Your task to perform on an android device: Show me popular videos on Youtube Image 0: 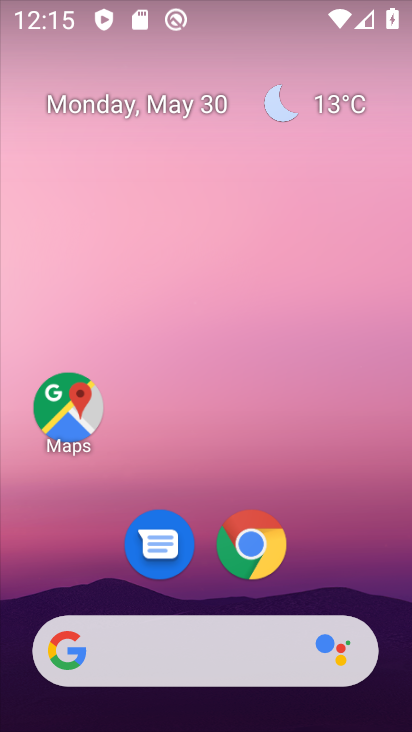
Step 0: drag from (365, 572) to (318, 22)
Your task to perform on an android device: Show me popular videos on Youtube Image 1: 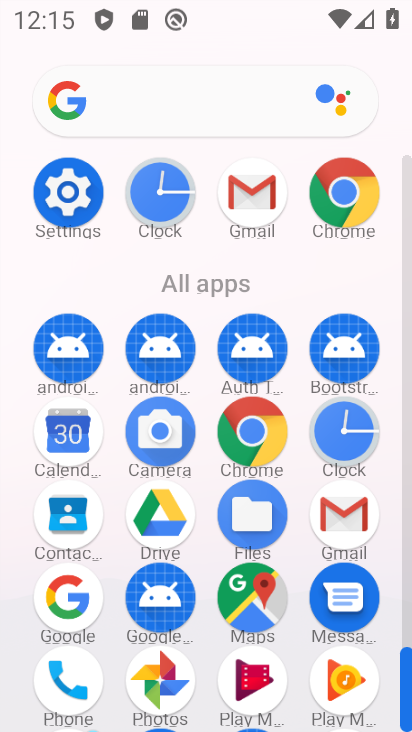
Step 1: click (409, 673)
Your task to perform on an android device: Show me popular videos on Youtube Image 2: 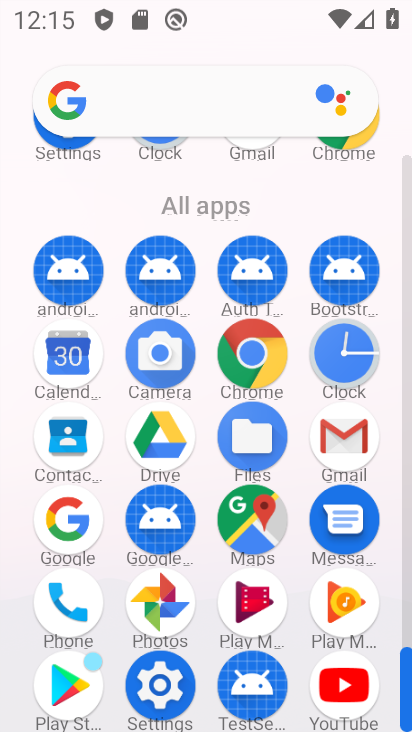
Step 2: click (361, 690)
Your task to perform on an android device: Show me popular videos on Youtube Image 3: 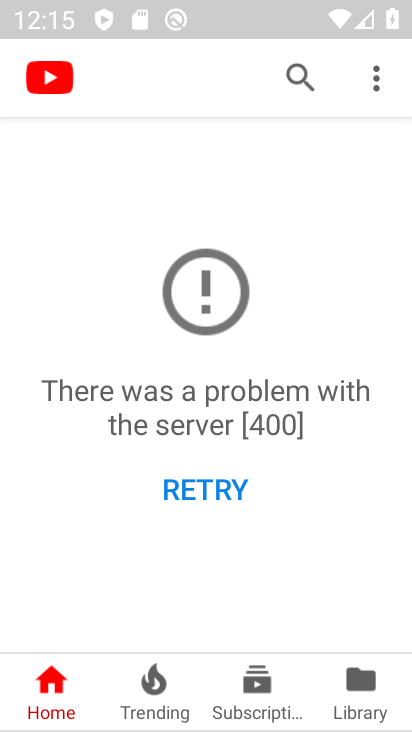
Step 3: task complete